Your task to perform on an android device: Where can I buy a nice beach bag? Image 0: 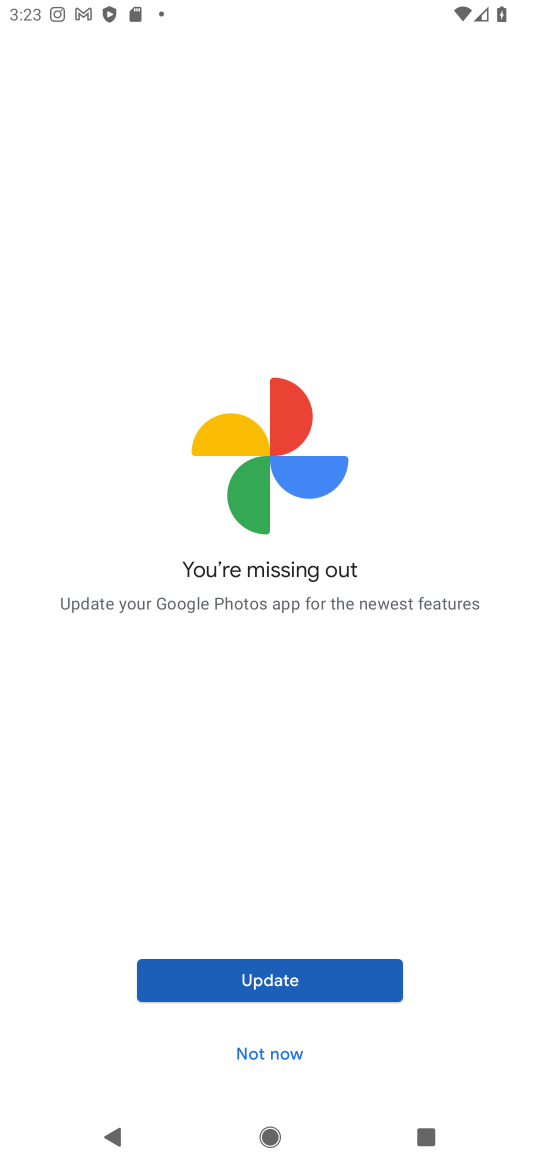
Step 0: press home button
Your task to perform on an android device: Where can I buy a nice beach bag? Image 1: 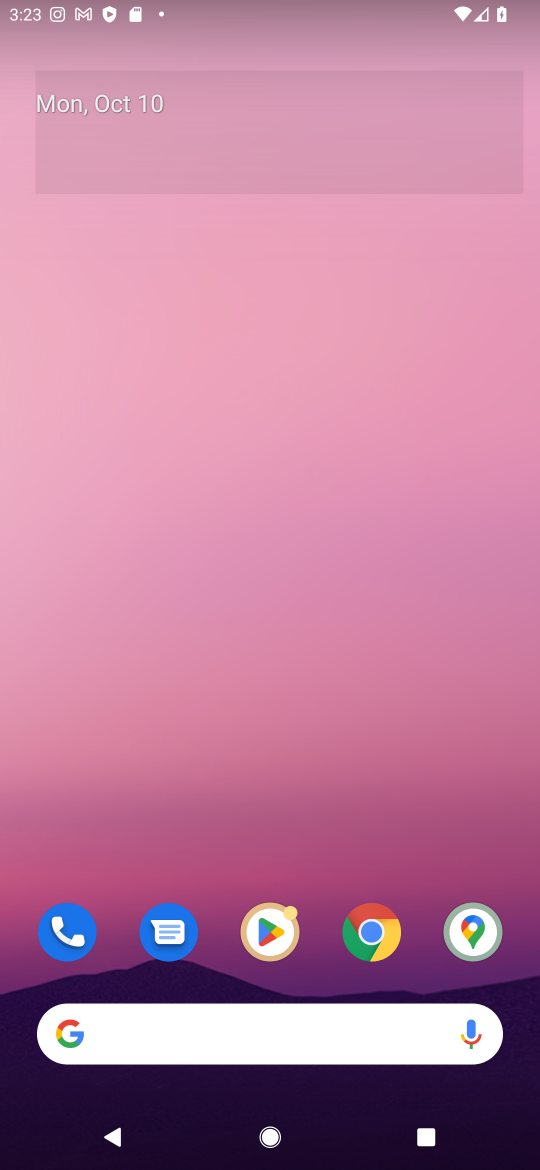
Step 1: click (351, 1043)
Your task to perform on an android device: Where can I buy a nice beach bag? Image 2: 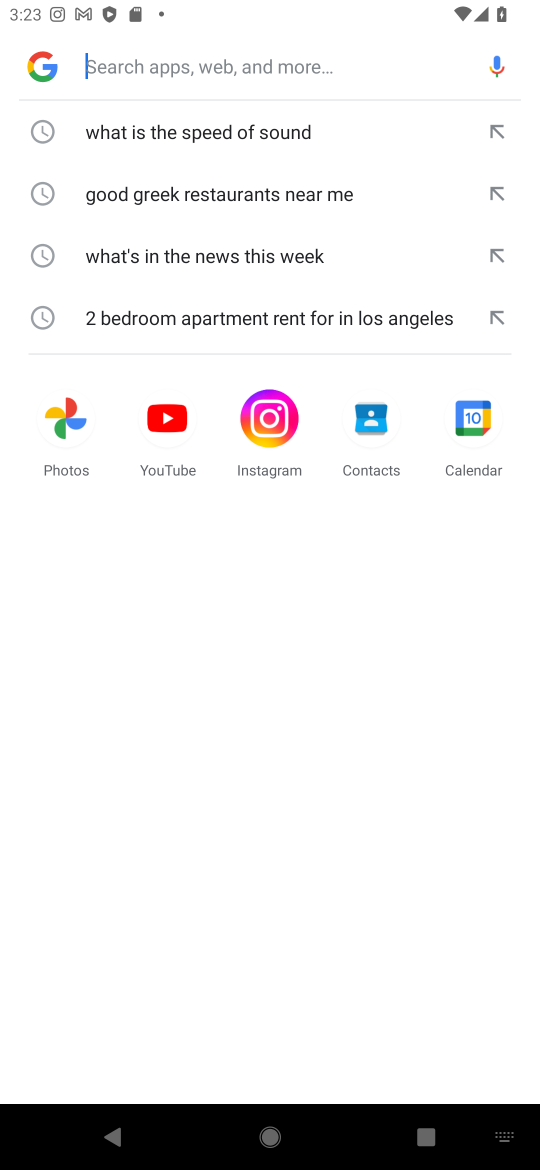
Step 2: press enter
Your task to perform on an android device: Where can I buy a nice beach bag? Image 3: 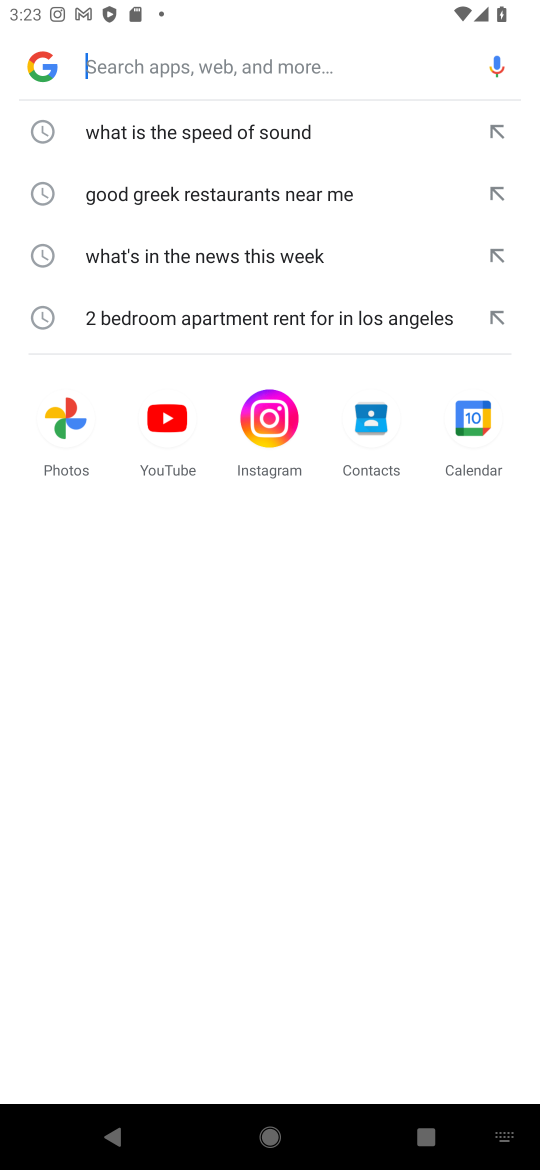
Step 3: type "Where can I buy a nice beach bag"
Your task to perform on an android device: Where can I buy a nice beach bag? Image 4: 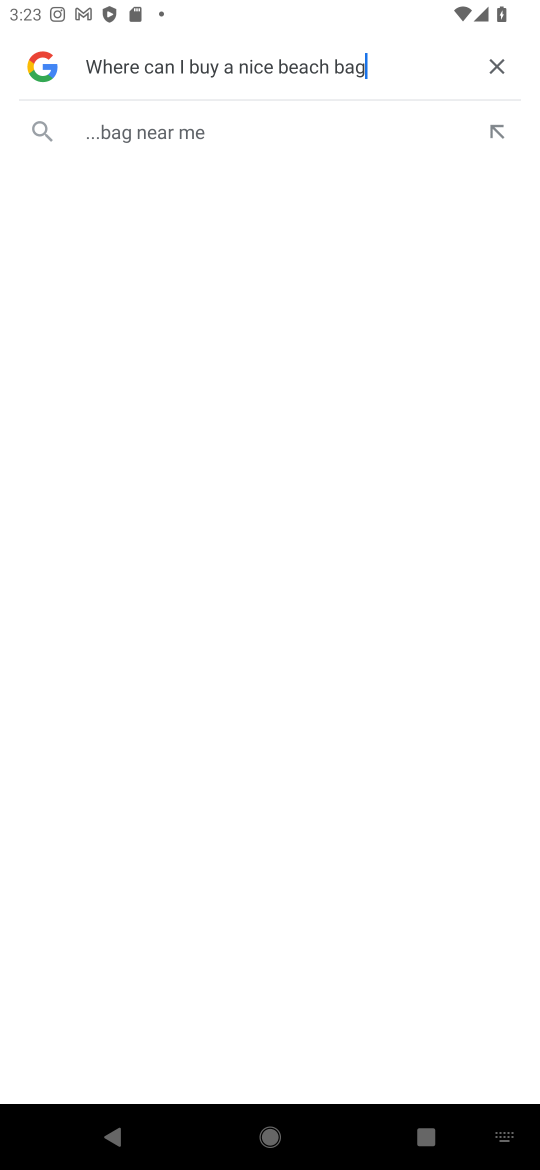
Step 4: press enter
Your task to perform on an android device: Where can I buy a nice beach bag? Image 5: 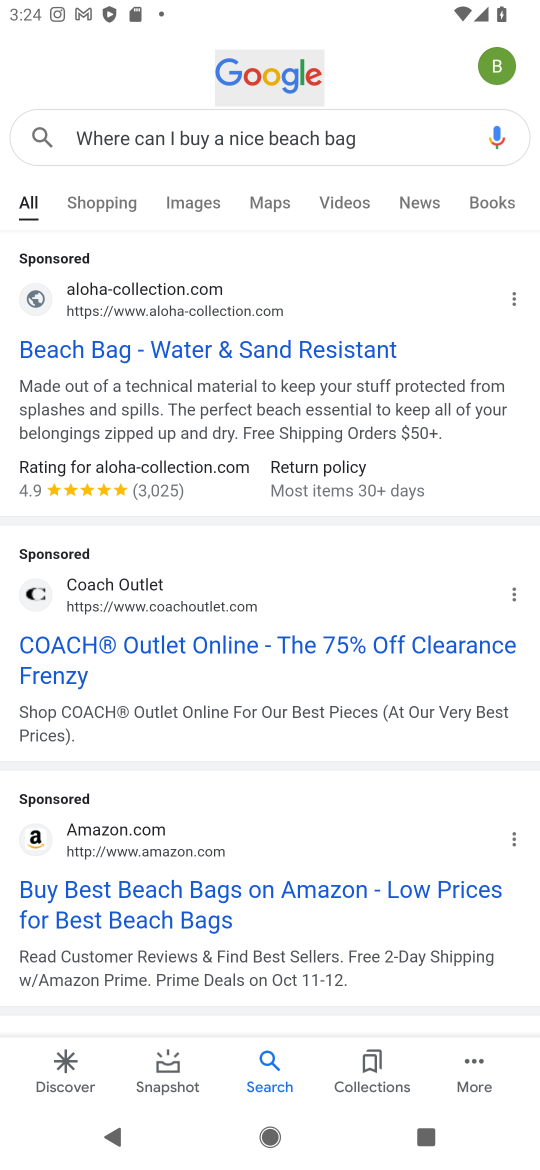
Step 5: click (294, 357)
Your task to perform on an android device: Where can I buy a nice beach bag? Image 6: 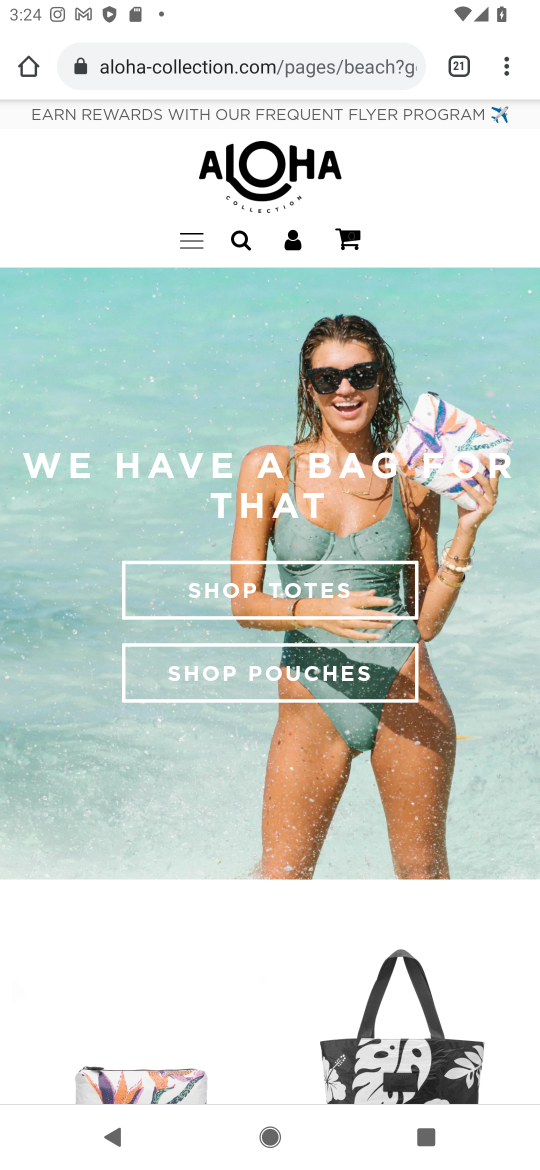
Step 6: task complete